Your task to perform on an android device: Go to Yahoo.com Image 0: 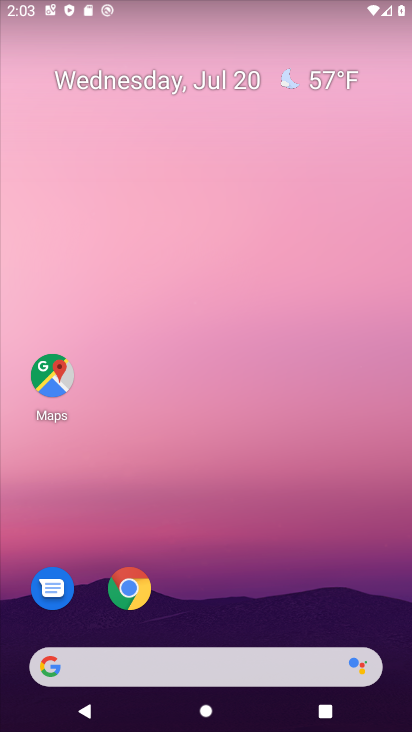
Step 0: drag from (384, 621) to (193, 14)
Your task to perform on an android device: Go to Yahoo.com Image 1: 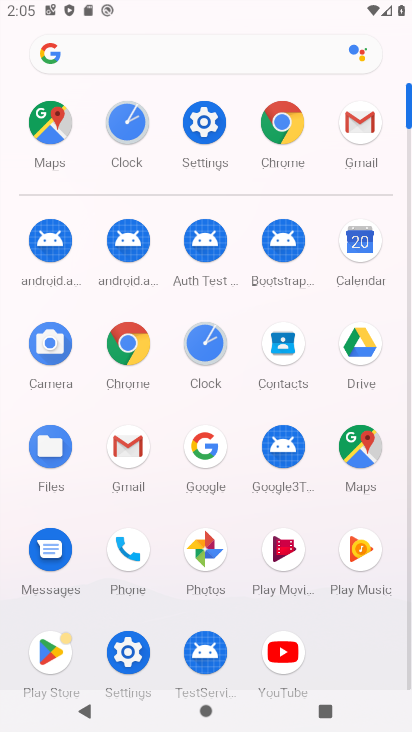
Step 1: click (187, 432)
Your task to perform on an android device: Go to Yahoo.com Image 2: 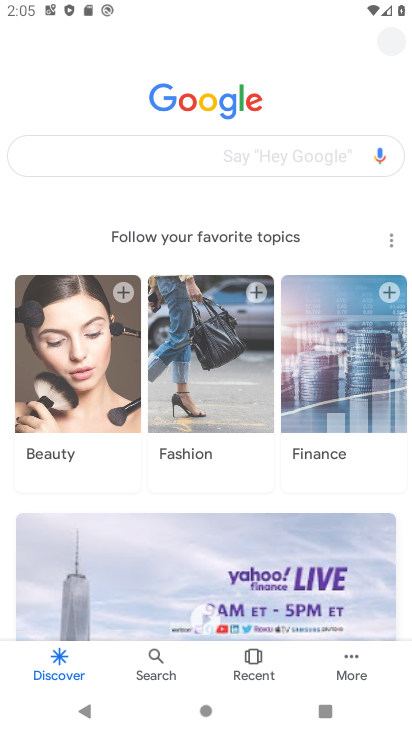
Step 2: click (115, 153)
Your task to perform on an android device: Go to Yahoo.com Image 3: 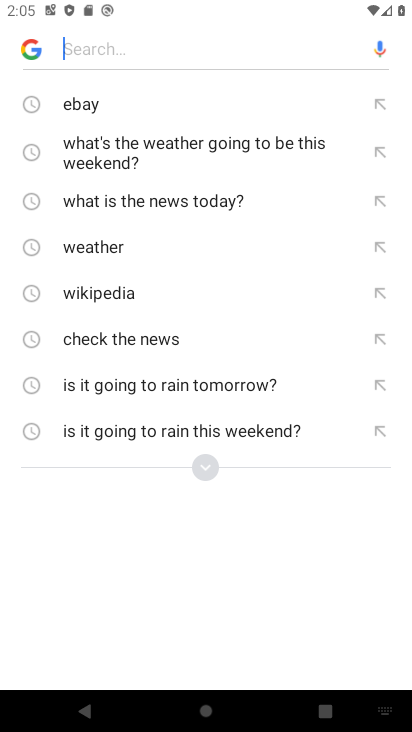
Step 3: type "Yahoo.com"
Your task to perform on an android device: Go to Yahoo.com Image 4: 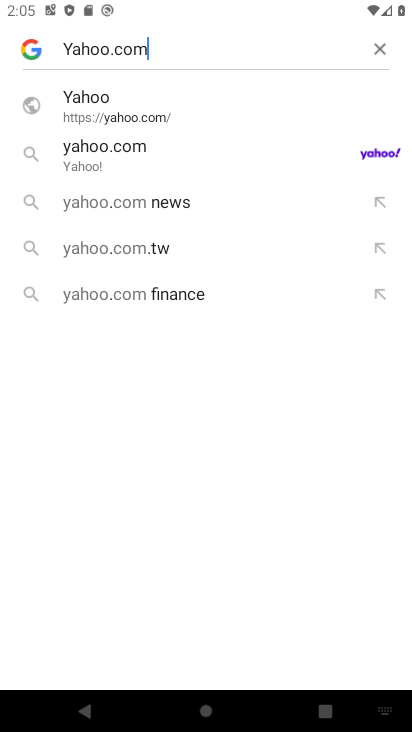
Step 4: click (144, 149)
Your task to perform on an android device: Go to Yahoo.com Image 5: 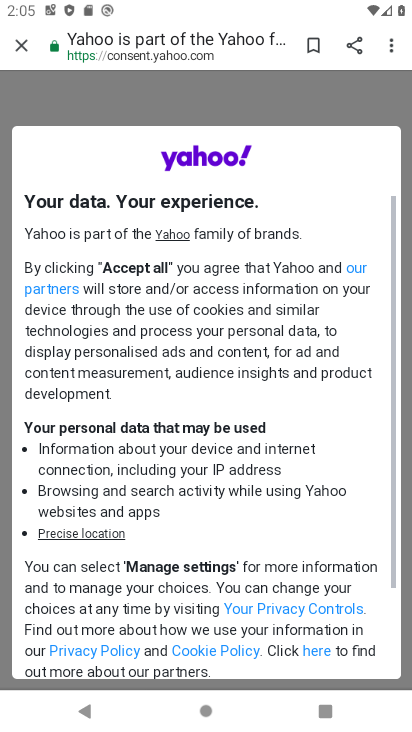
Step 5: task complete